Your task to perform on an android device: see sites visited before in the chrome app Image 0: 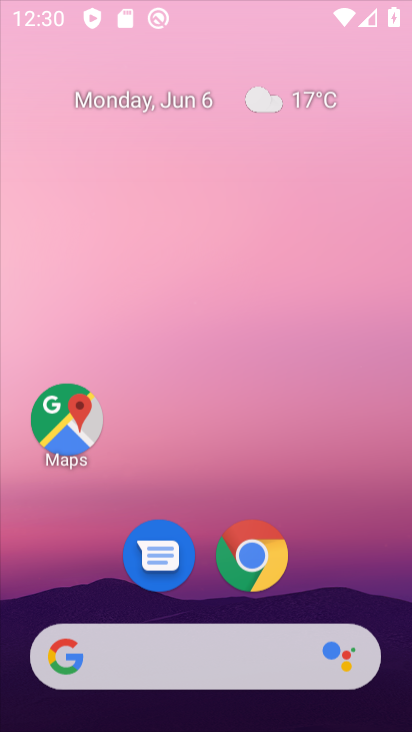
Step 0: click (238, 207)
Your task to perform on an android device: see sites visited before in the chrome app Image 1: 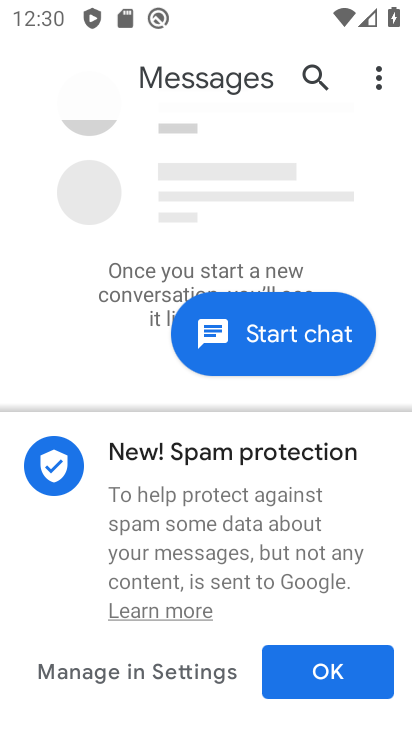
Step 1: press home button
Your task to perform on an android device: see sites visited before in the chrome app Image 2: 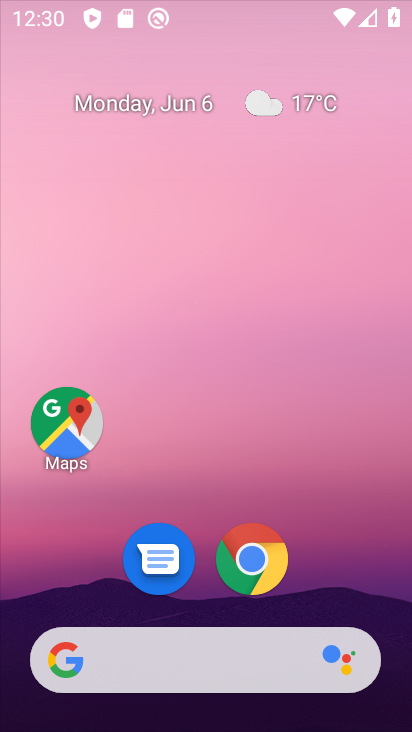
Step 2: drag from (202, 694) to (212, 144)
Your task to perform on an android device: see sites visited before in the chrome app Image 3: 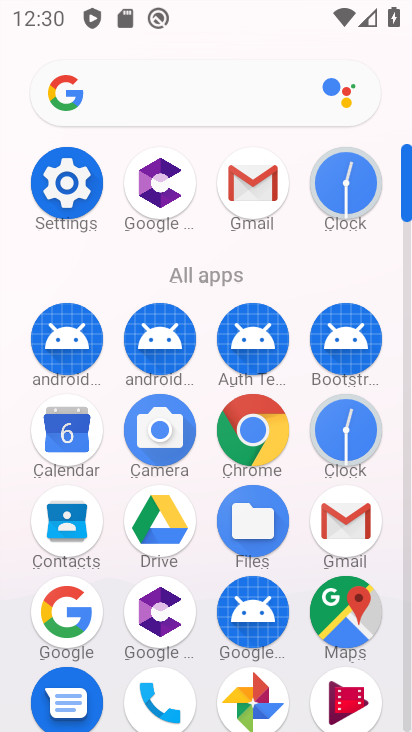
Step 3: click (274, 456)
Your task to perform on an android device: see sites visited before in the chrome app Image 4: 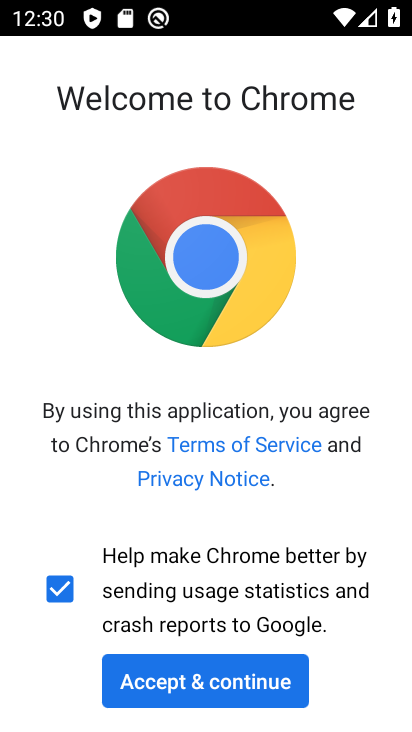
Step 4: click (212, 675)
Your task to perform on an android device: see sites visited before in the chrome app Image 5: 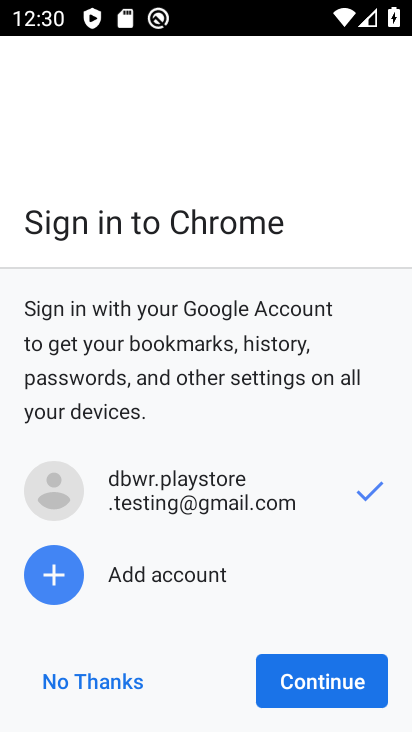
Step 5: click (292, 677)
Your task to perform on an android device: see sites visited before in the chrome app Image 6: 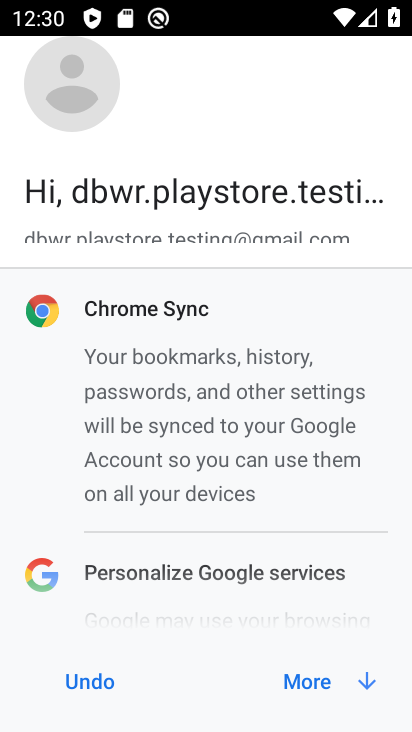
Step 6: click (292, 664)
Your task to perform on an android device: see sites visited before in the chrome app Image 7: 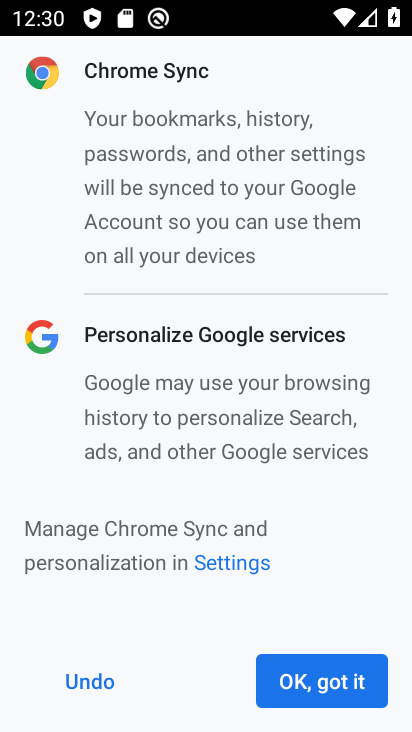
Step 7: click (292, 664)
Your task to perform on an android device: see sites visited before in the chrome app Image 8: 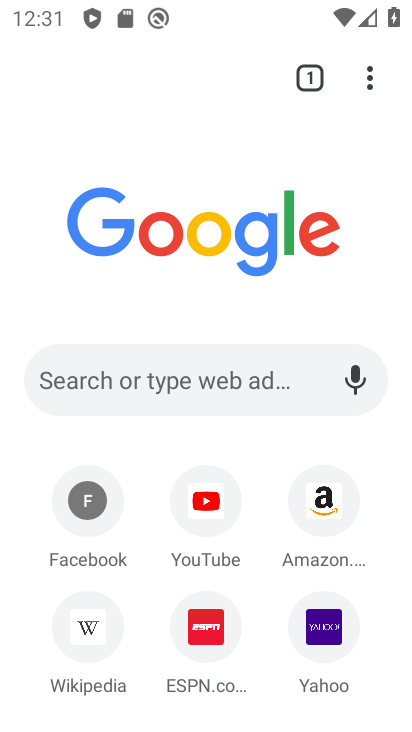
Step 8: click (378, 99)
Your task to perform on an android device: see sites visited before in the chrome app Image 9: 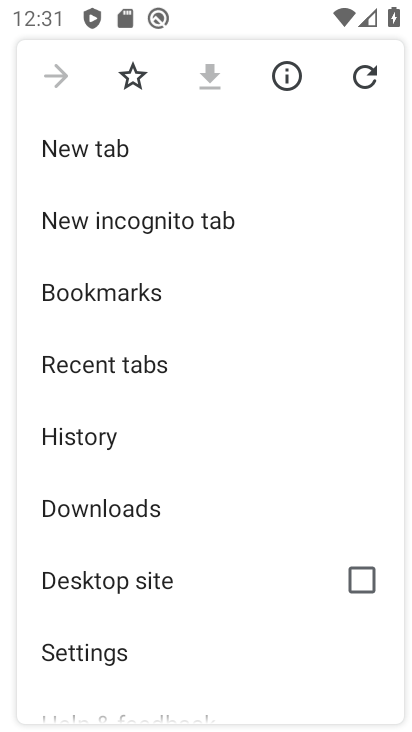
Step 9: drag from (175, 563) to (206, 306)
Your task to perform on an android device: see sites visited before in the chrome app Image 10: 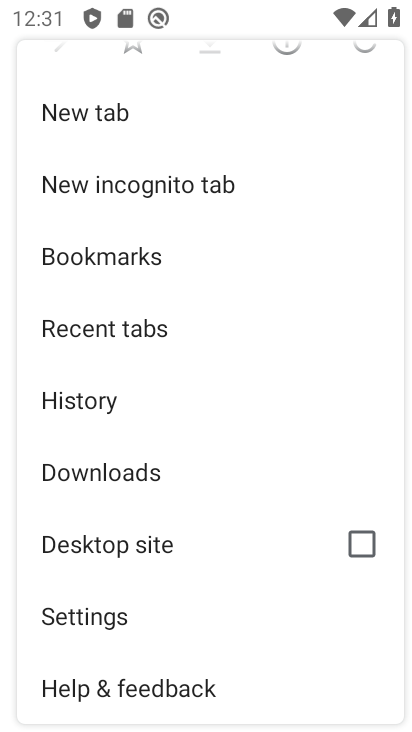
Step 10: click (188, 398)
Your task to perform on an android device: see sites visited before in the chrome app Image 11: 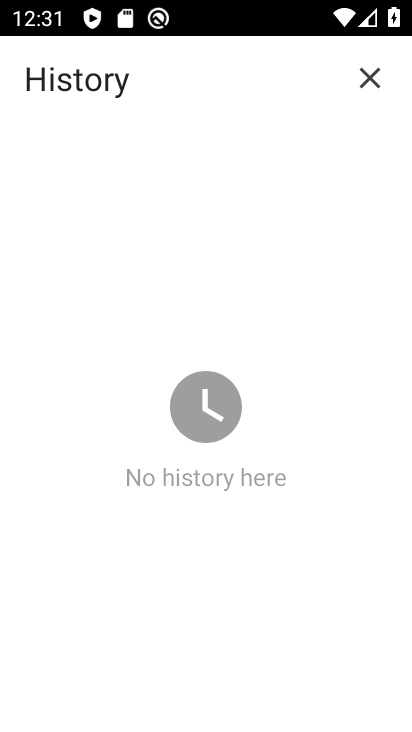
Step 11: task complete